Your task to perform on an android device: move an email to a new category in the gmail app Image 0: 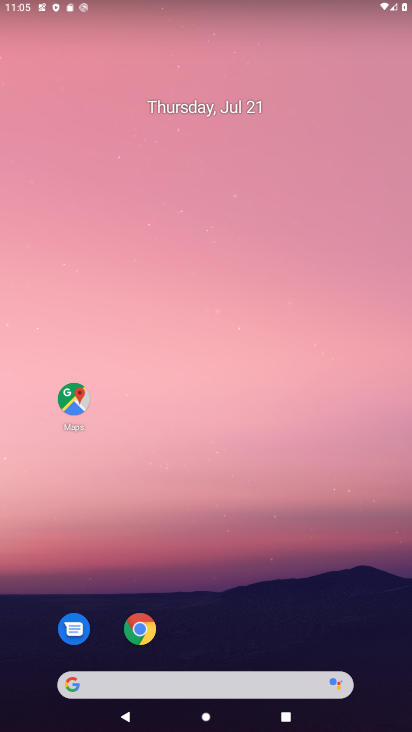
Step 0: drag from (295, 577) to (283, 304)
Your task to perform on an android device: move an email to a new category in the gmail app Image 1: 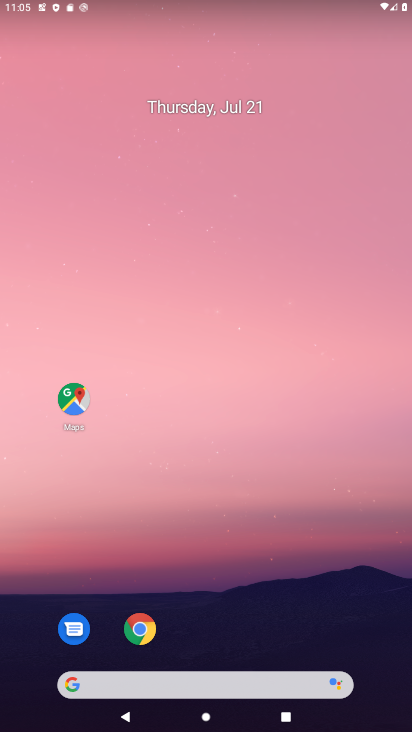
Step 1: drag from (277, 548) to (294, 264)
Your task to perform on an android device: move an email to a new category in the gmail app Image 2: 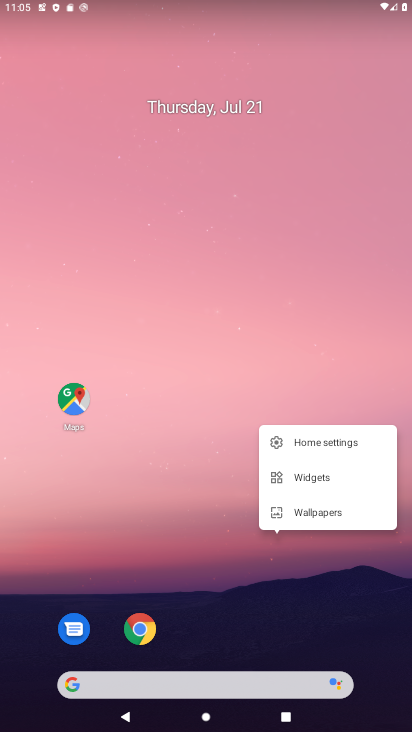
Step 2: click (303, 269)
Your task to perform on an android device: move an email to a new category in the gmail app Image 3: 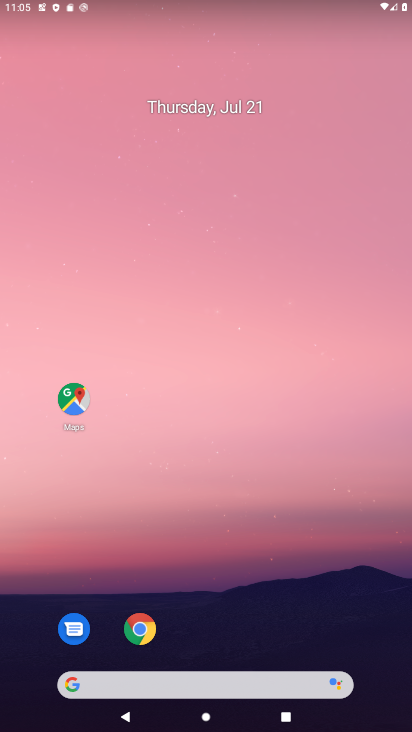
Step 3: drag from (285, 502) to (298, 212)
Your task to perform on an android device: move an email to a new category in the gmail app Image 4: 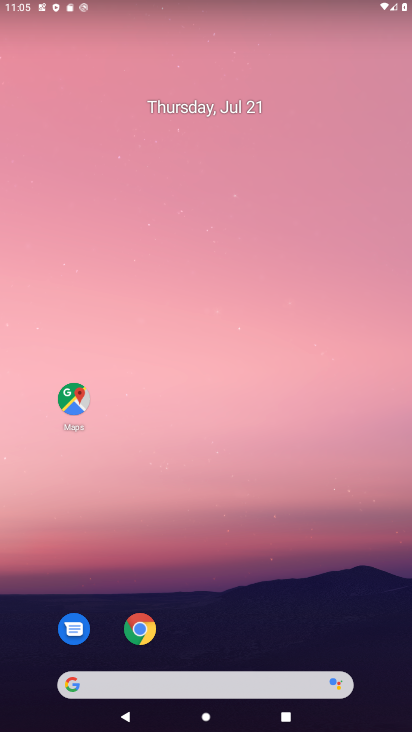
Step 4: drag from (231, 570) to (234, 423)
Your task to perform on an android device: move an email to a new category in the gmail app Image 5: 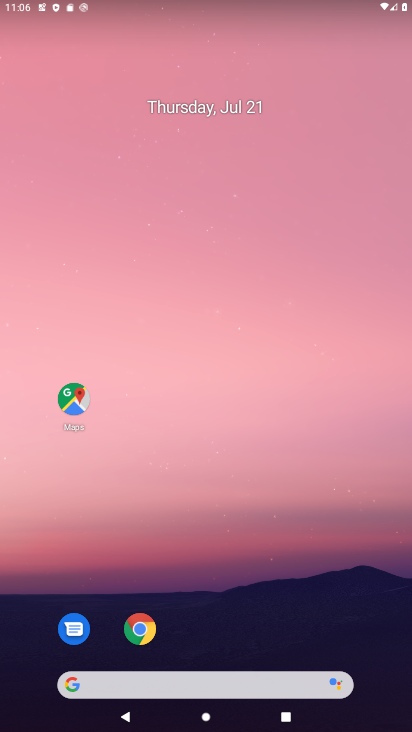
Step 5: click (235, 527)
Your task to perform on an android device: move an email to a new category in the gmail app Image 6: 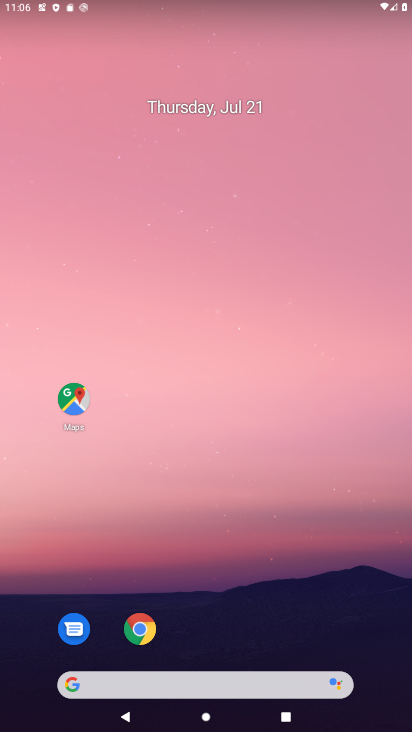
Step 6: drag from (235, 527) to (262, 258)
Your task to perform on an android device: move an email to a new category in the gmail app Image 7: 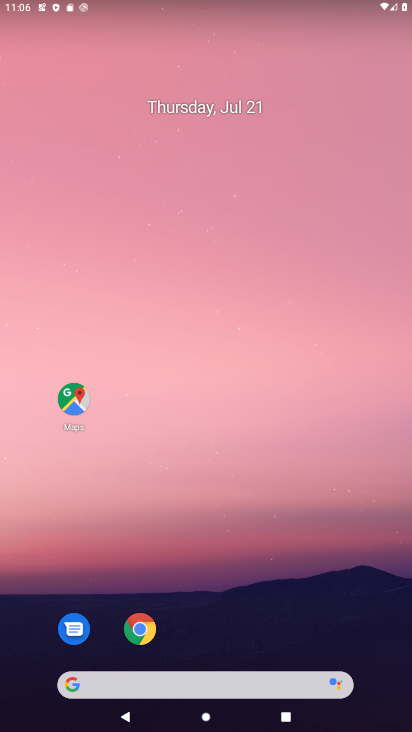
Step 7: drag from (251, 548) to (253, 270)
Your task to perform on an android device: move an email to a new category in the gmail app Image 8: 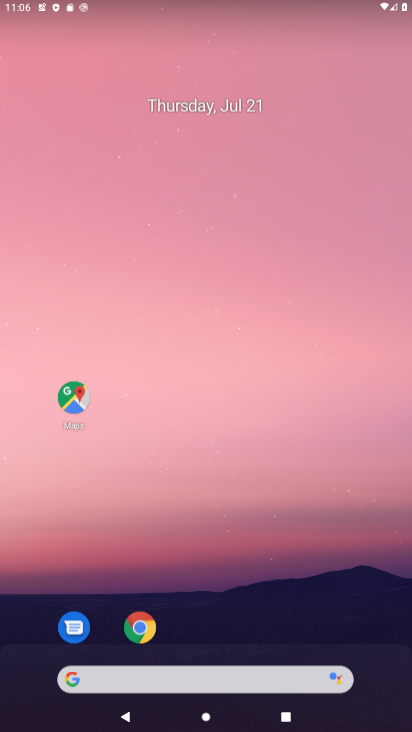
Step 8: drag from (229, 528) to (176, 102)
Your task to perform on an android device: move an email to a new category in the gmail app Image 9: 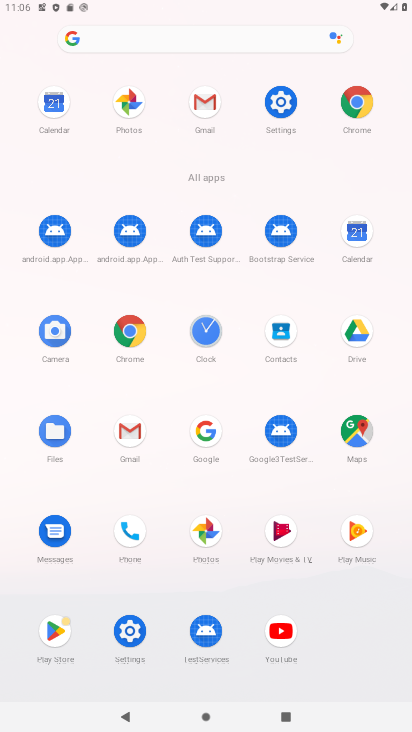
Step 9: click (129, 429)
Your task to perform on an android device: move an email to a new category in the gmail app Image 10: 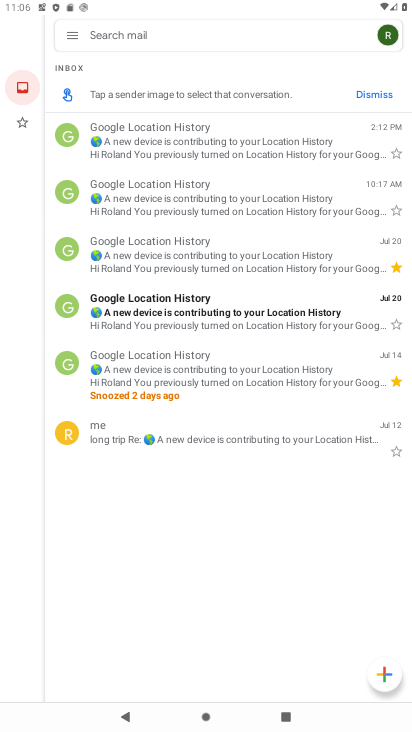
Step 10: task complete